Your task to perform on an android device: see creations saved in the google photos Image 0: 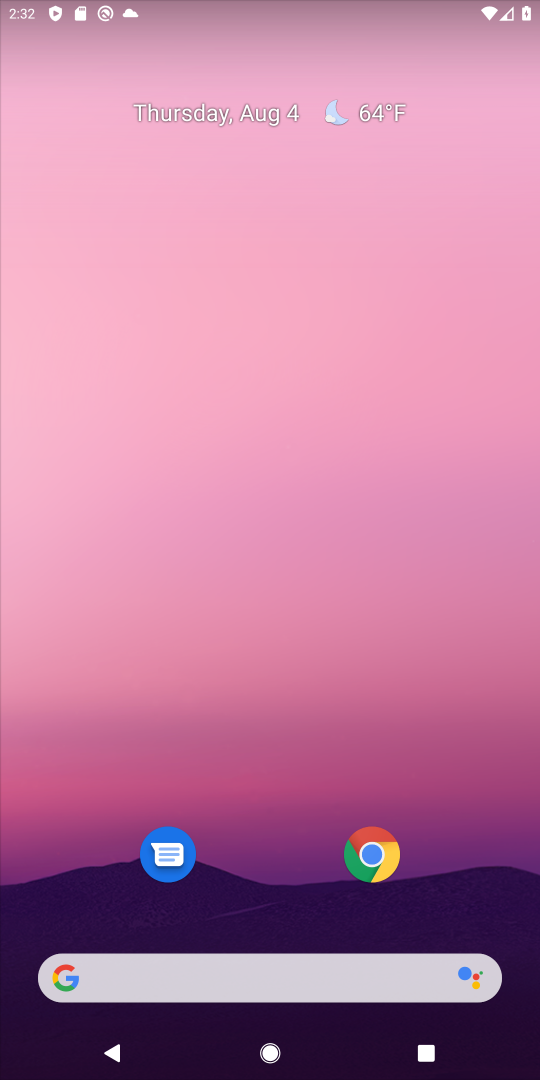
Step 0: drag from (271, 886) to (319, 542)
Your task to perform on an android device: see creations saved in the google photos Image 1: 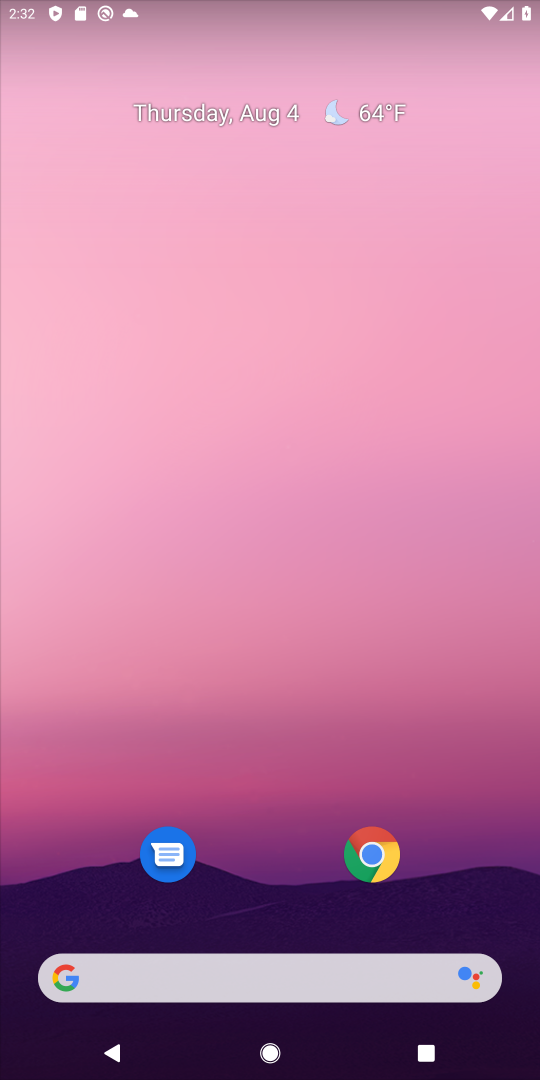
Step 1: drag from (274, 829) to (273, 378)
Your task to perform on an android device: see creations saved in the google photos Image 2: 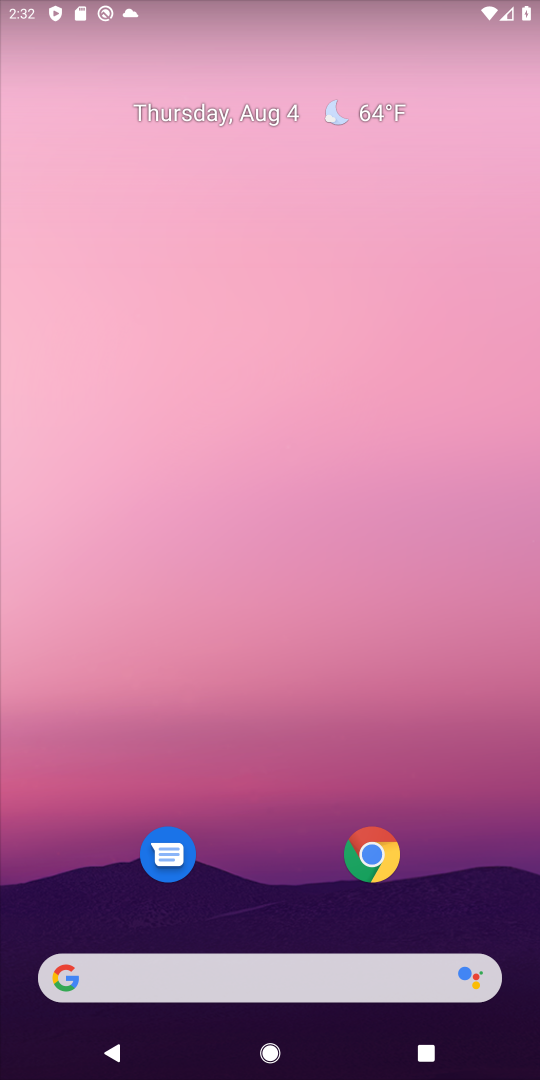
Step 2: drag from (256, 859) to (310, 357)
Your task to perform on an android device: see creations saved in the google photos Image 3: 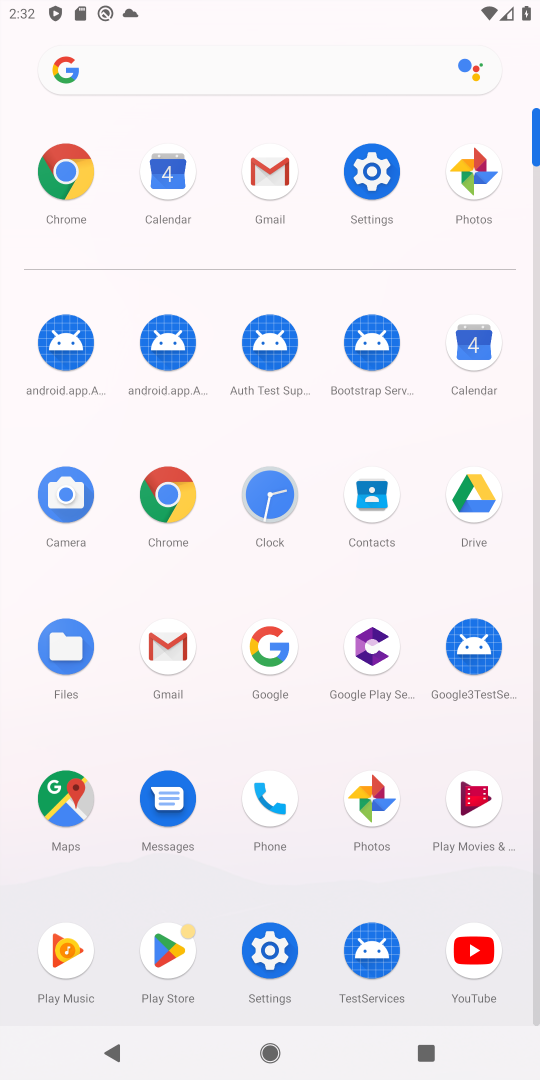
Step 3: click (371, 798)
Your task to perform on an android device: see creations saved in the google photos Image 4: 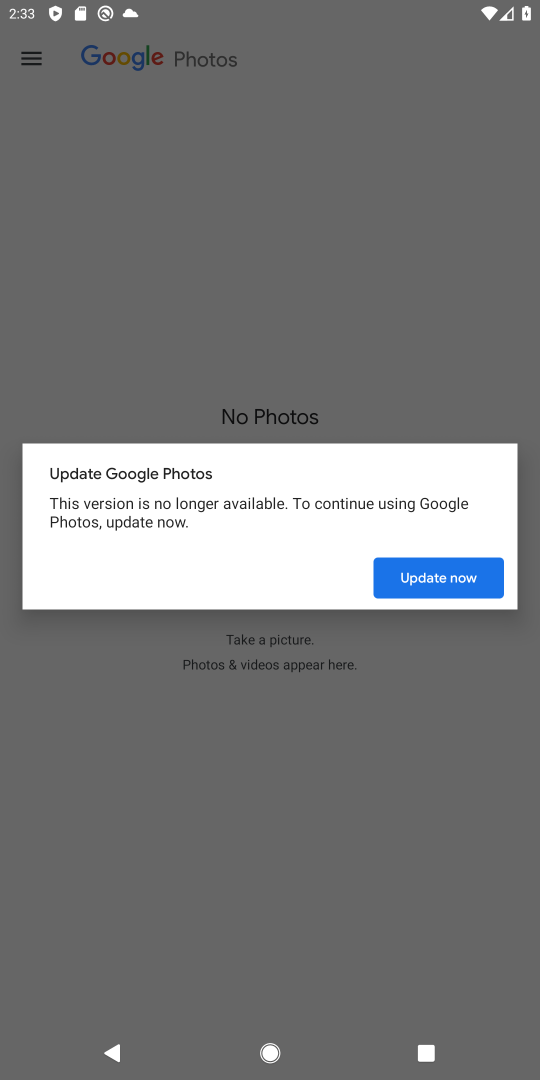
Step 4: task complete